Your task to perform on an android device: manage bookmarks in the chrome app Image 0: 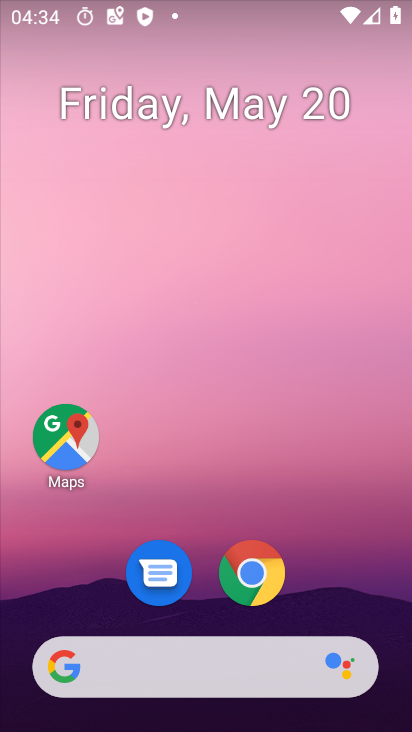
Step 0: drag from (364, 712) to (187, 150)
Your task to perform on an android device: manage bookmarks in the chrome app Image 1: 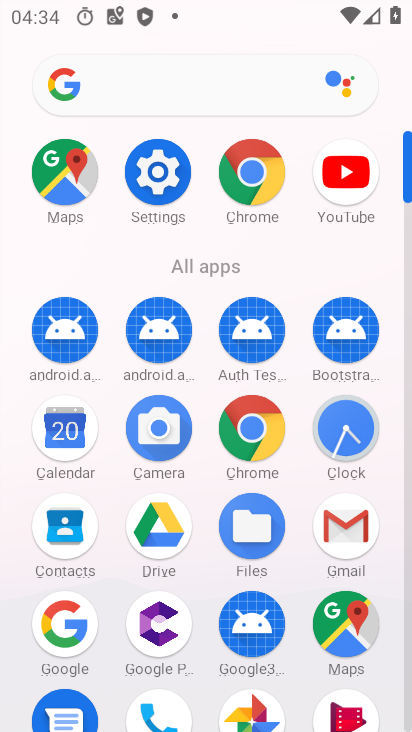
Step 1: click (242, 168)
Your task to perform on an android device: manage bookmarks in the chrome app Image 2: 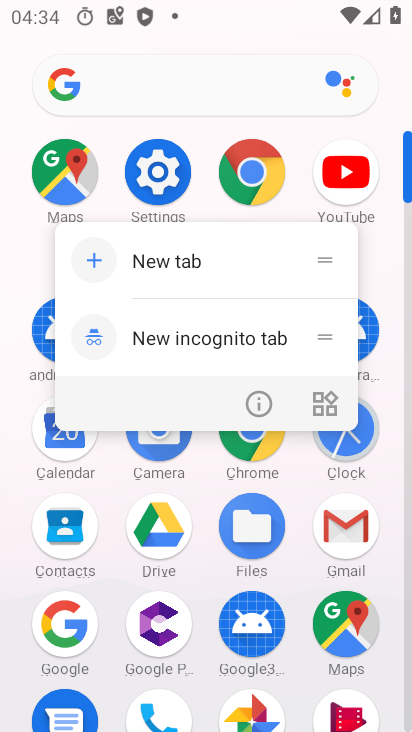
Step 2: click (246, 170)
Your task to perform on an android device: manage bookmarks in the chrome app Image 3: 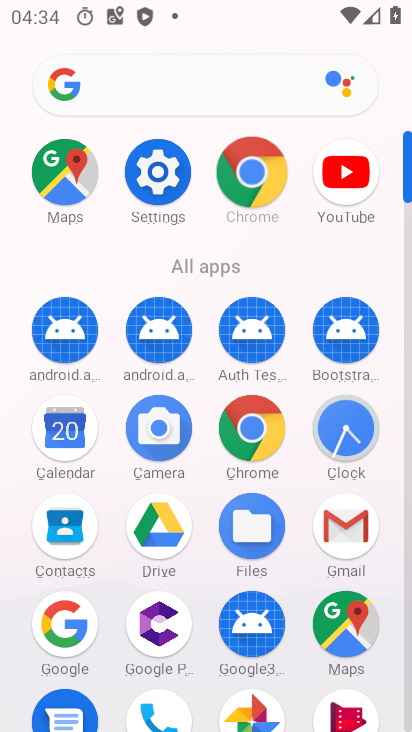
Step 3: click (246, 170)
Your task to perform on an android device: manage bookmarks in the chrome app Image 4: 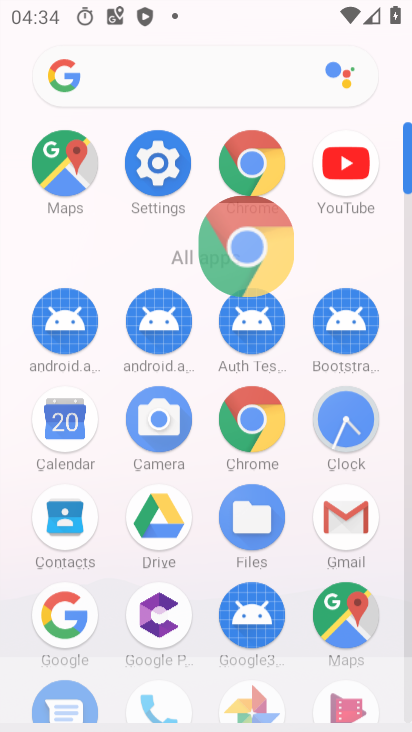
Step 4: click (246, 170)
Your task to perform on an android device: manage bookmarks in the chrome app Image 5: 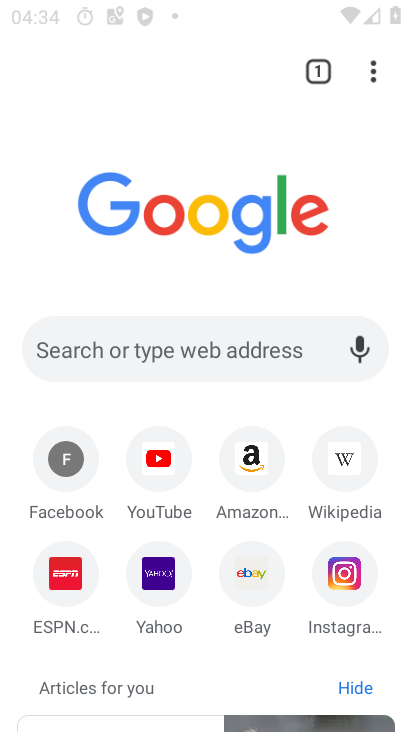
Step 5: click (246, 170)
Your task to perform on an android device: manage bookmarks in the chrome app Image 6: 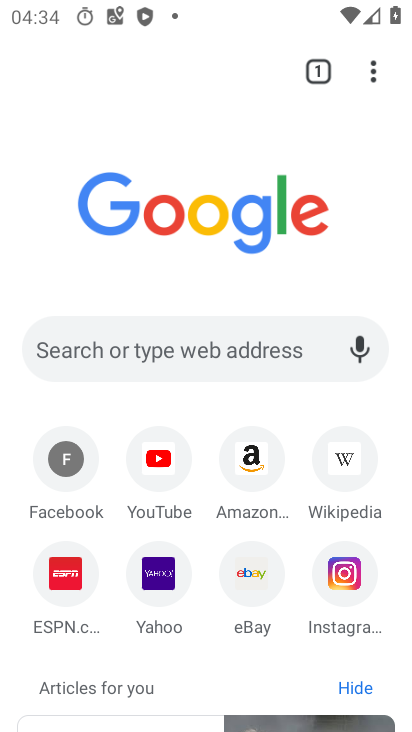
Step 6: click (246, 170)
Your task to perform on an android device: manage bookmarks in the chrome app Image 7: 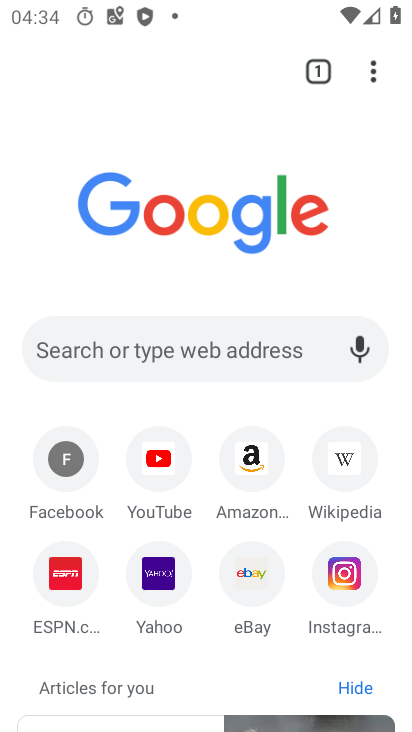
Step 7: click (247, 166)
Your task to perform on an android device: manage bookmarks in the chrome app Image 8: 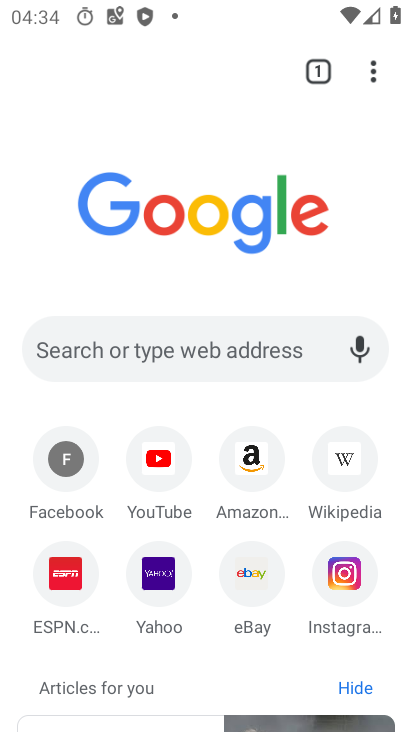
Step 8: drag from (369, 73) to (129, 267)
Your task to perform on an android device: manage bookmarks in the chrome app Image 9: 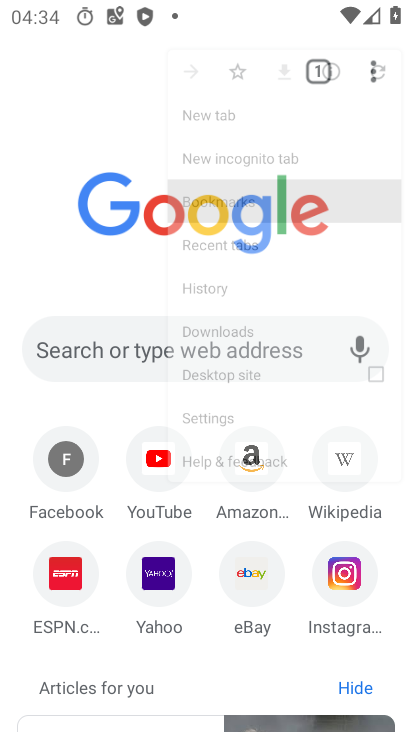
Step 9: click (131, 270)
Your task to perform on an android device: manage bookmarks in the chrome app Image 10: 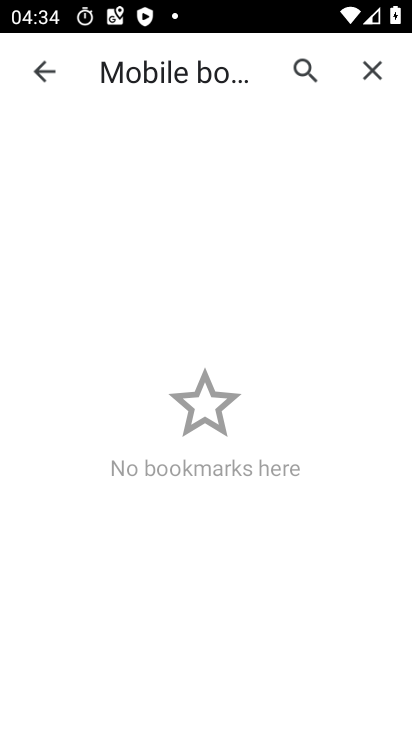
Step 10: click (143, 277)
Your task to perform on an android device: manage bookmarks in the chrome app Image 11: 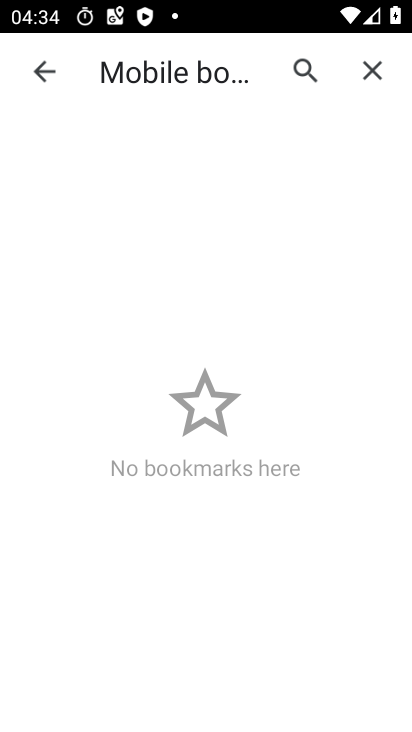
Step 11: click (152, 276)
Your task to perform on an android device: manage bookmarks in the chrome app Image 12: 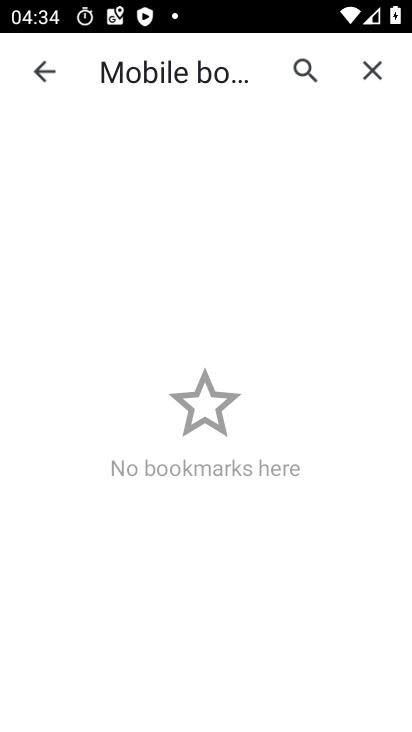
Step 12: task complete